Your task to perform on an android device: Open Youtube and go to "Your channel" Image 0: 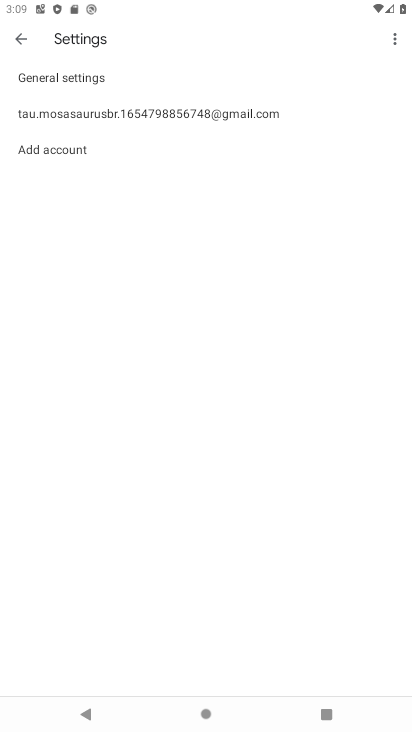
Step 0: press home button
Your task to perform on an android device: Open Youtube and go to "Your channel" Image 1: 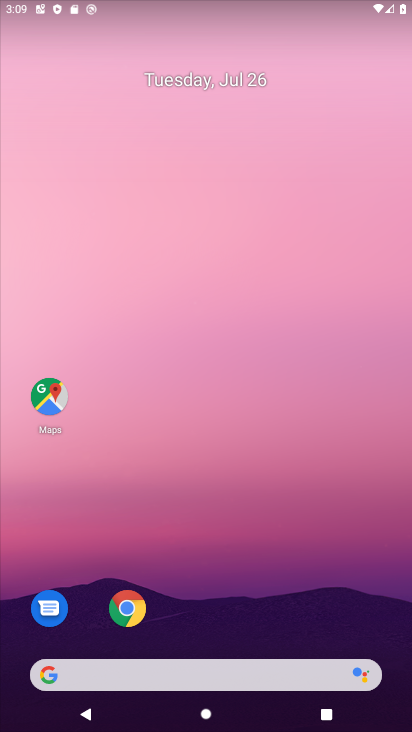
Step 1: drag from (300, 556) to (303, 211)
Your task to perform on an android device: Open Youtube and go to "Your channel" Image 2: 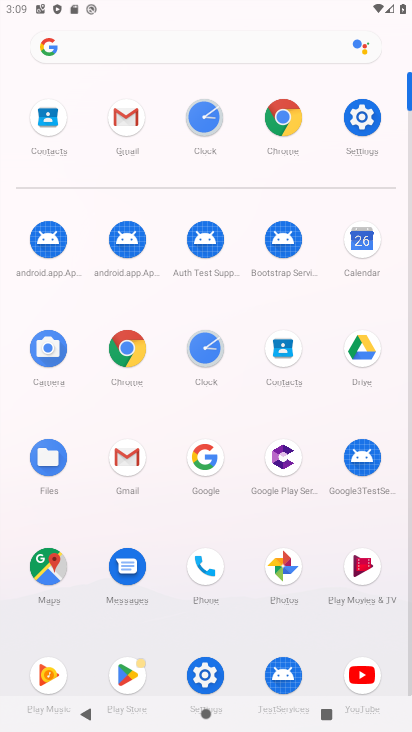
Step 2: click (360, 675)
Your task to perform on an android device: Open Youtube and go to "Your channel" Image 3: 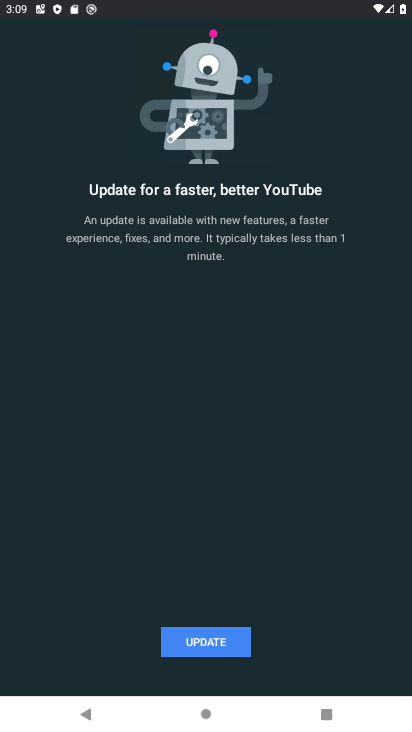
Step 3: task complete